Your task to perform on an android device: Check the news Image 0: 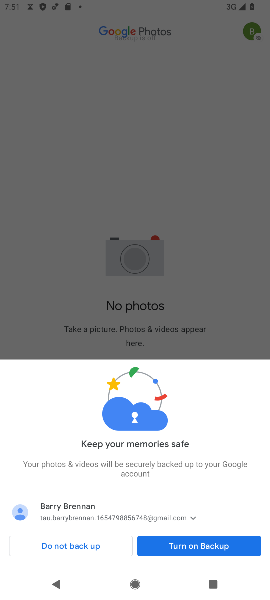
Step 0: press home button
Your task to perform on an android device: Check the news Image 1: 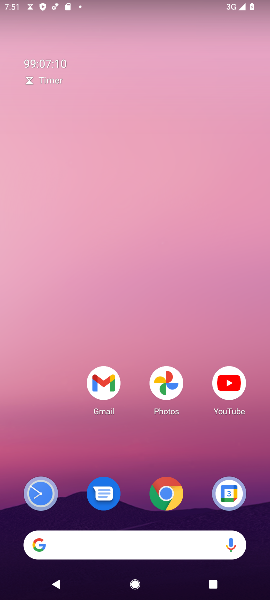
Step 1: drag from (108, 544) to (152, 214)
Your task to perform on an android device: Check the news Image 2: 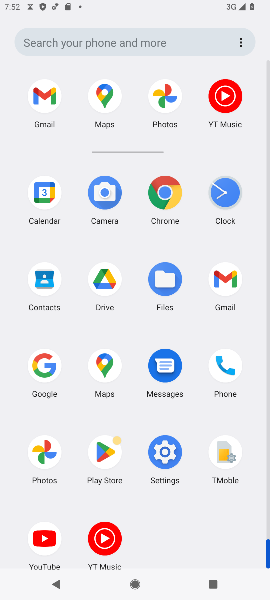
Step 2: click (162, 192)
Your task to perform on an android device: Check the news Image 3: 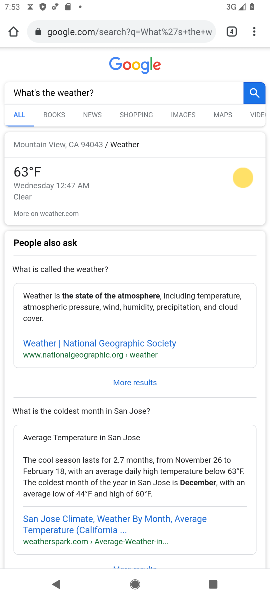
Step 3: click (248, 18)
Your task to perform on an android device: Check the news Image 4: 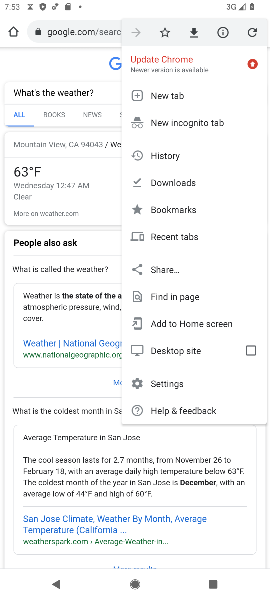
Step 4: click (162, 93)
Your task to perform on an android device: Check the news Image 5: 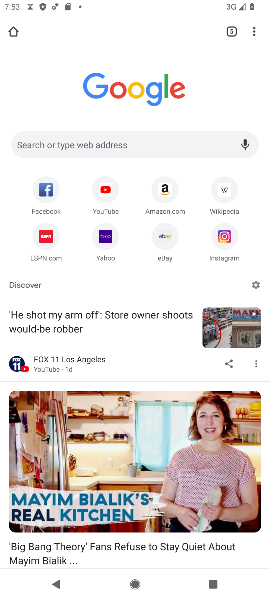
Step 5: click (93, 140)
Your task to perform on an android device: Check the news Image 6: 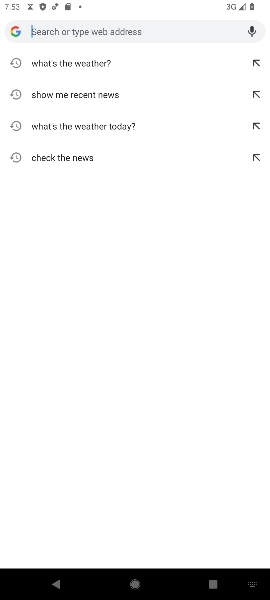
Step 6: click (80, 163)
Your task to perform on an android device: Check the news Image 7: 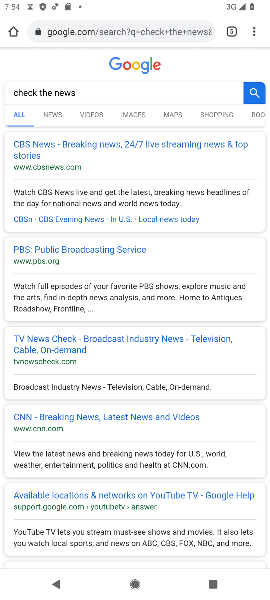
Step 7: task complete